Your task to perform on an android device: clear all cookies in the chrome app Image 0: 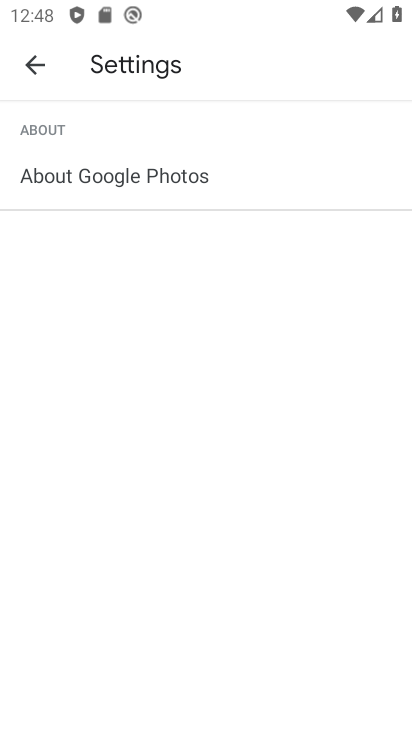
Step 0: press home button
Your task to perform on an android device: clear all cookies in the chrome app Image 1: 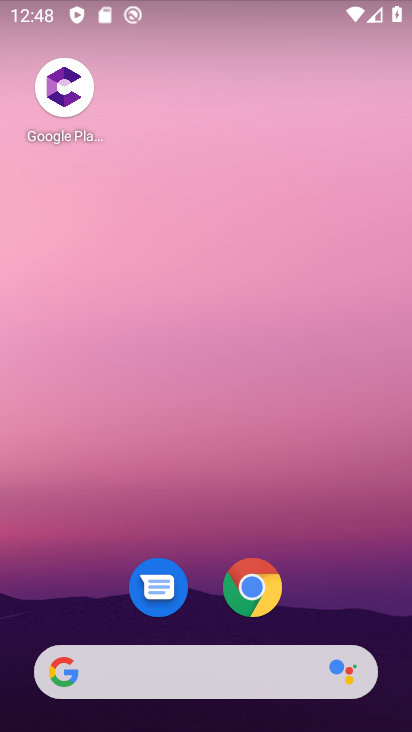
Step 1: click (250, 586)
Your task to perform on an android device: clear all cookies in the chrome app Image 2: 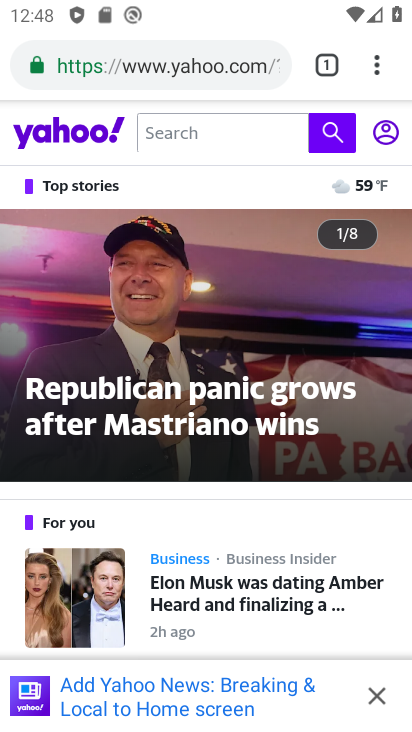
Step 2: click (375, 59)
Your task to perform on an android device: clear all cookies in the chrome app Image 3: 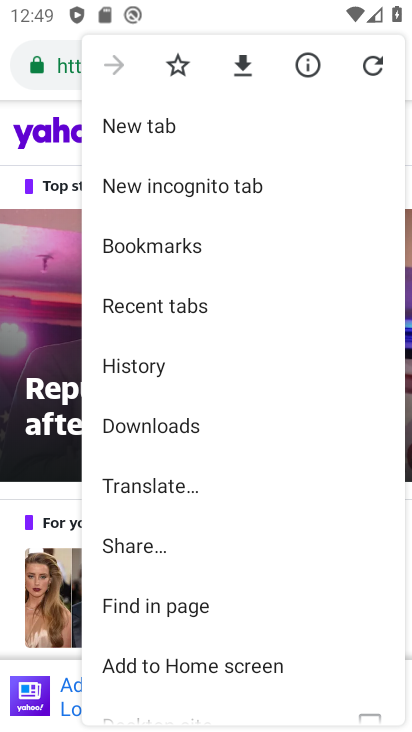
Step 3: drag from (295, 556) to (307, 99)
Your task to perform on an android device: clear all cookies in the chrome app Image 4: 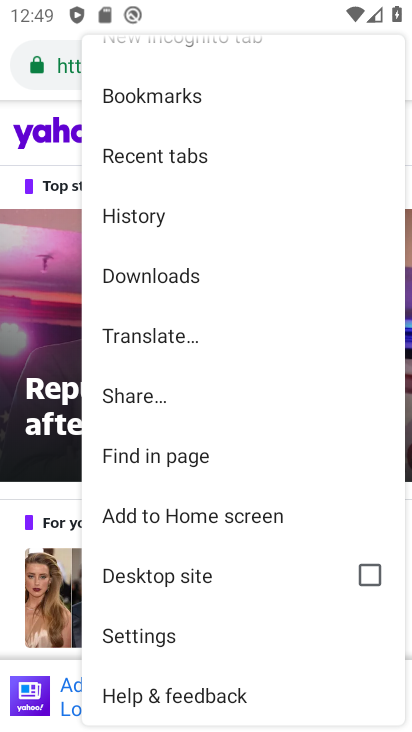
Step 4: click (150, 633)
Your task to perform on an android device: clear all cookies in the chrome app Image 5: 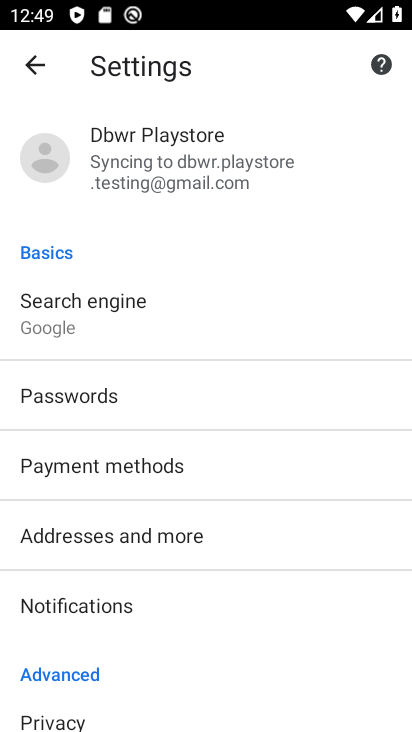
Step 5: drag from (160, 402) to (131, 158)
Your task to perform on an android device: clear all cookies in the chrome app Image 6: 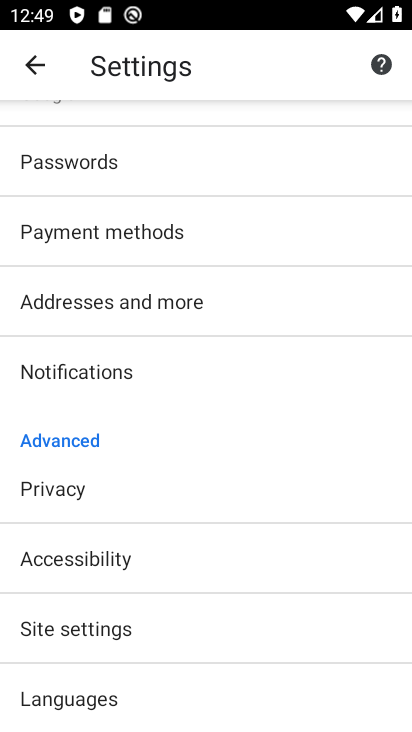
Step 6: click (56, 481)
Your task to perform on an android device: clear all cookies in the chrome app Image 7: 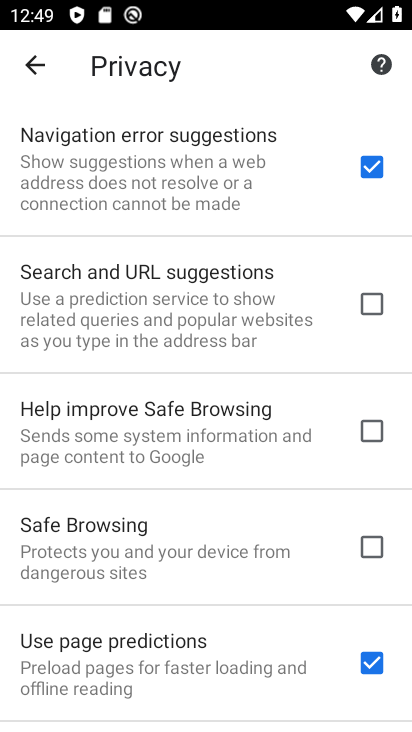
Step 7: drag from (242, 572) to (241, 117)
Your task to perform on an android device: clear all cookies in the chrome app Image 8: 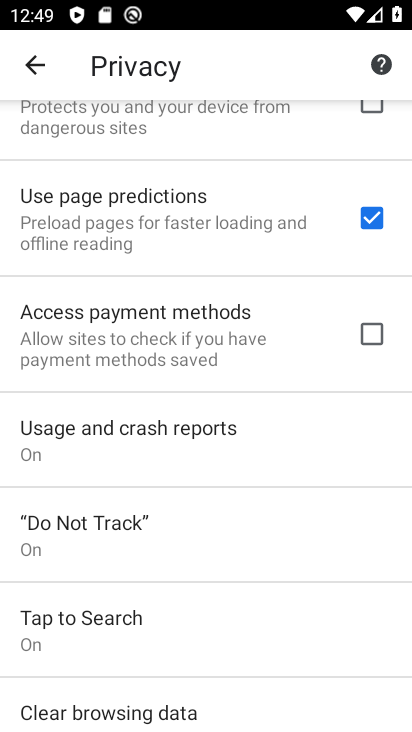
Step 8: drag from (256, 538) to (229, 170)
Your task to perform on an android device: clear all cookies in the chrome app Image 9: 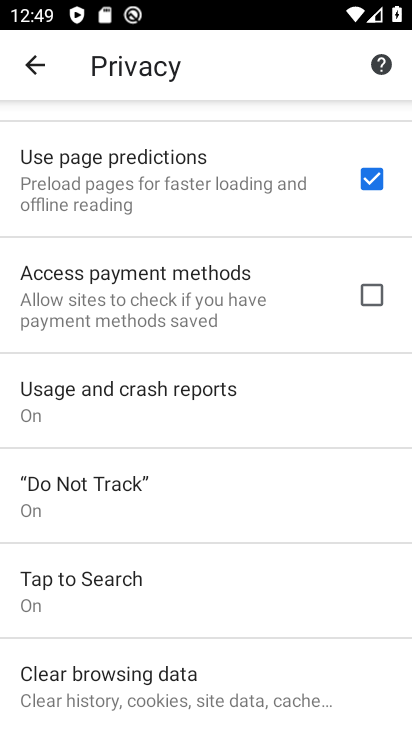
Step 9: click (125, 673)
Your task to perform on an android device: clear all cookies in the chrome app Image 10: 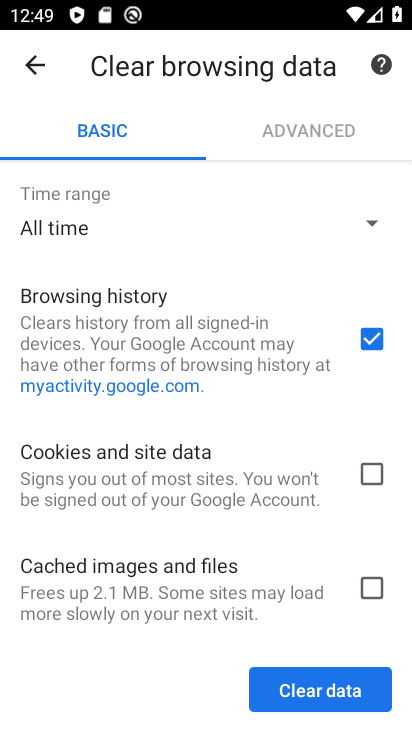
Step 10: click (371, 332)
Your task to perform on an android device: clear all cookies in the chrome app Image 11: 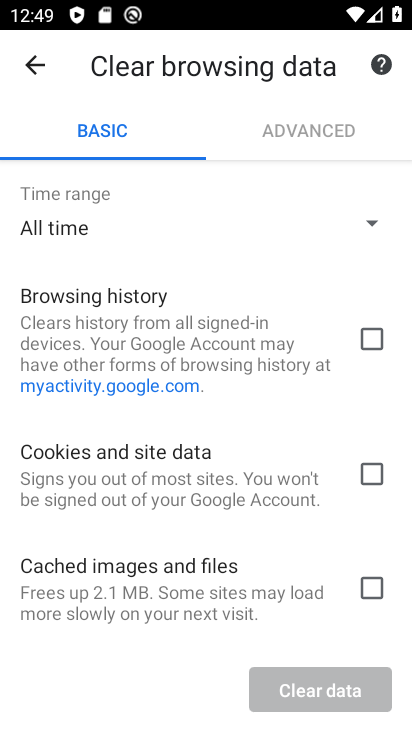
Step 11: click (369, 476)
Your task to perform on an android device: clear all cookies in the chrome app Image 12: 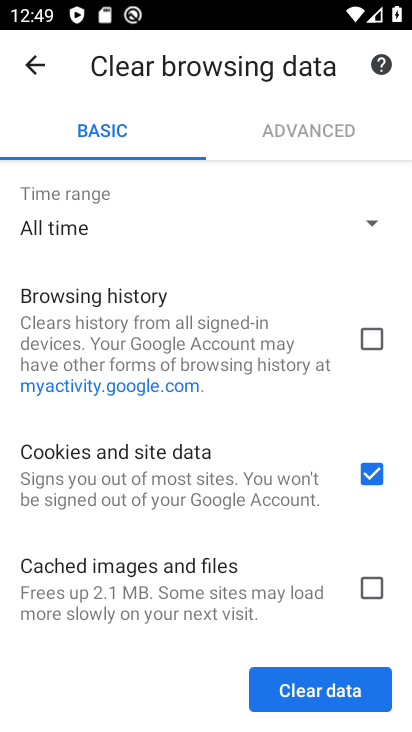
Step 12: click (320, 696)
Your task to perform on an android device: clear all cookies in the chrome app Image 13: 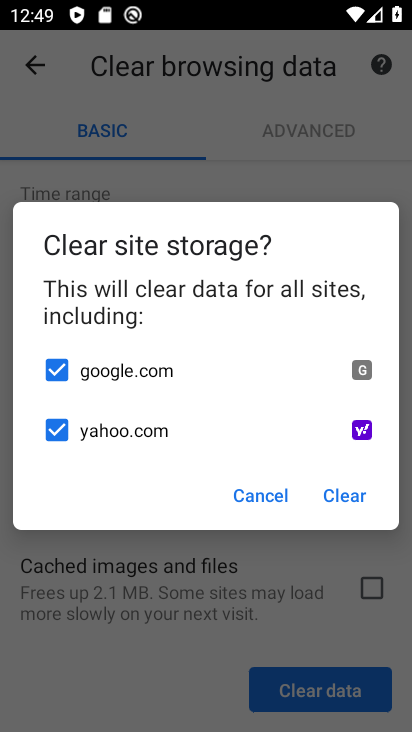
Step 13: click (347, 500)
Your task to perform on an android device: clear all cookies in the chrome app Image 14: 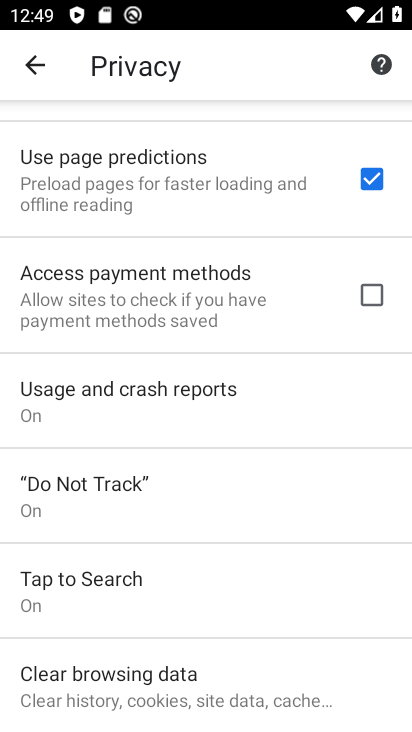
Step 14: task complete